Your task to perform on an android device: Open Chrome and go to settings Image 0: 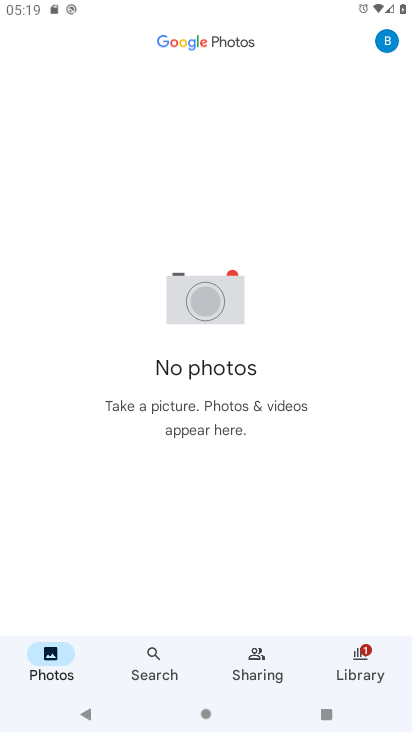
Step 0: press home button
Your task to perform on an android device: Open Chrome and go to settings Image 1: 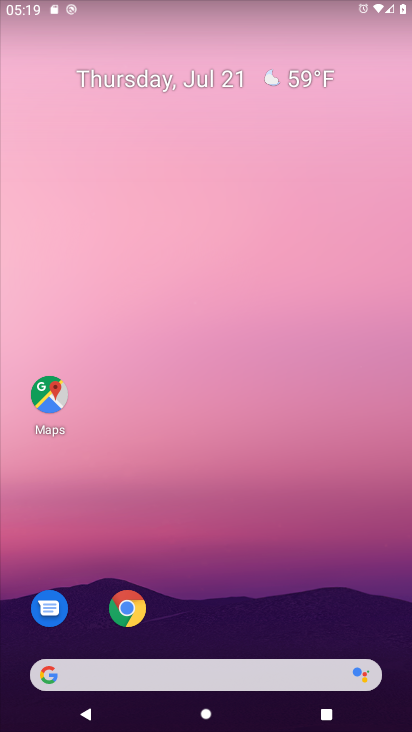
Step 1: drag from (265, 660) to (288, 101)
Your task to perform on an android device: Open Chrome and go to settings Image 2: 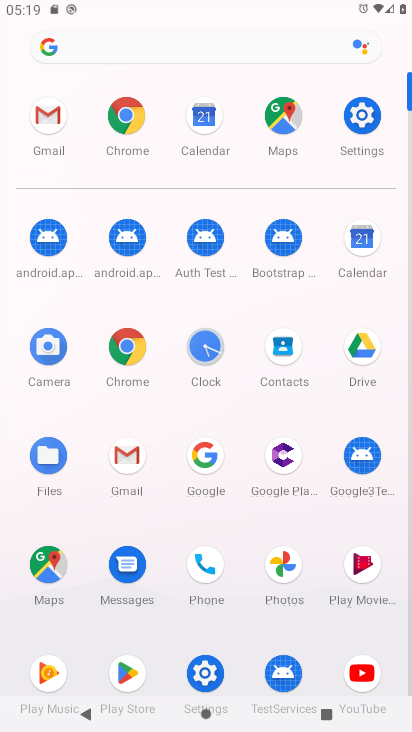
Step 2: click (117, 336)
Your task to perform on an android device: Open Chrome and go to settings Image 3: 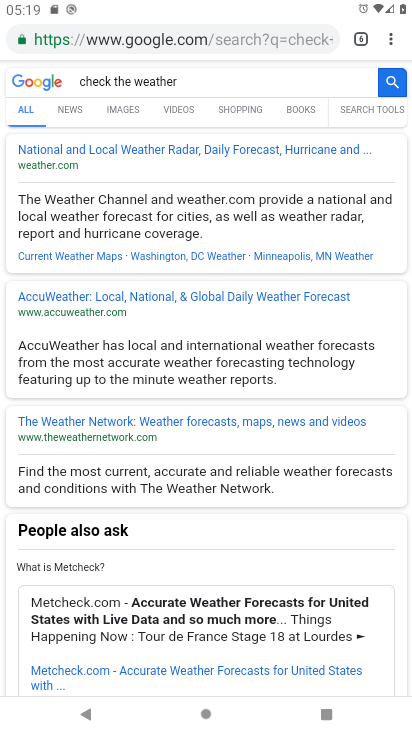
Step 3: task complete